Your task to perform on an android device: set the stopwatch Image 0: 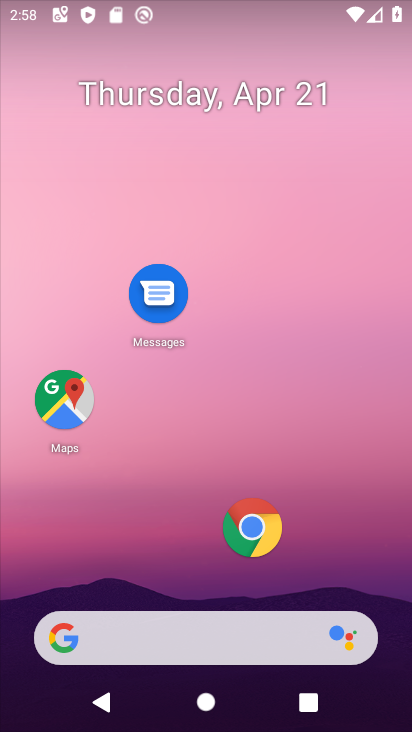
Step 0: drag from (248, 609) to (240, 182)
Your task to perform on an android device: set the stopwatch Image 1: 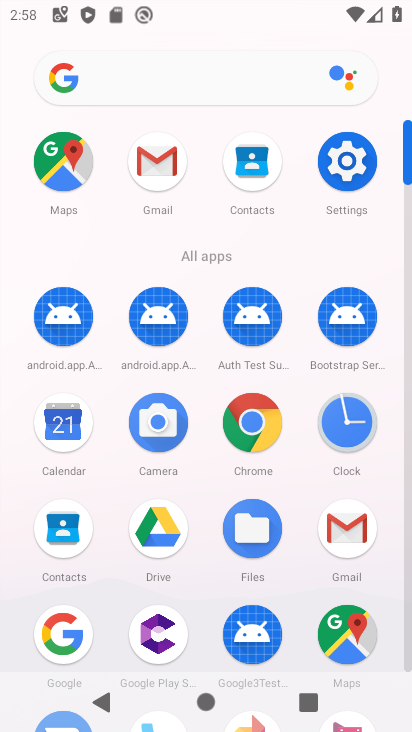
Step 1: click (337, 427)
Your task to perform on an android device: set the stopwatch Image 2: 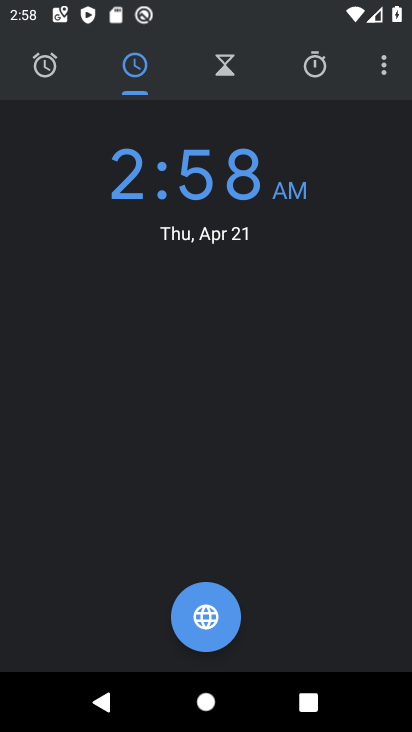
Step 2: click (320, 68)
Your task to perform on an android device: set the stopwatch Image 3: 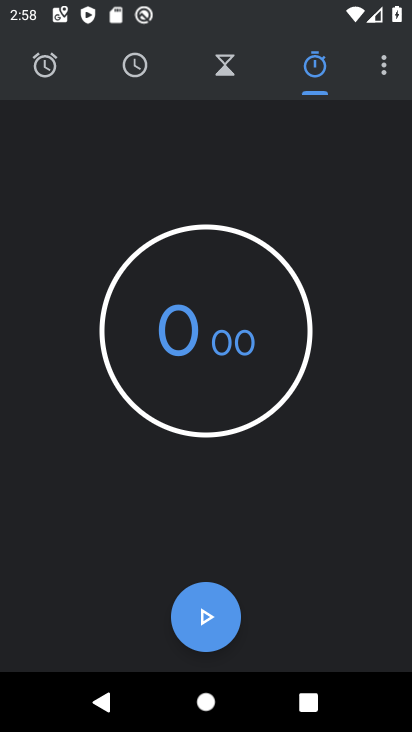
Step 3: click (201, 627)
Your task to perform on an android device: set the stopwatch Image 4: 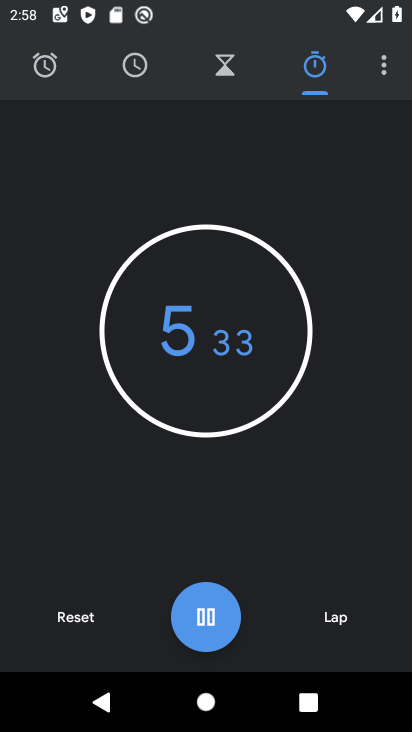
Step 4: click (201, 627)
Your task to perform on an android device: set the stopwatch Image 5: 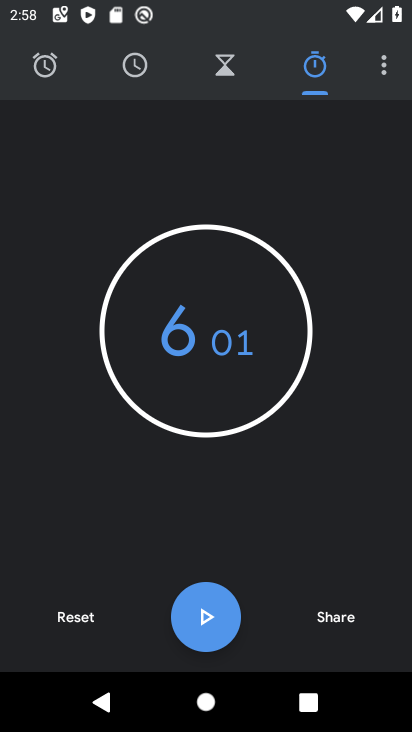
Step 5: task complete